Your task to perform on an android device: Open Yahoo.com Image 0: 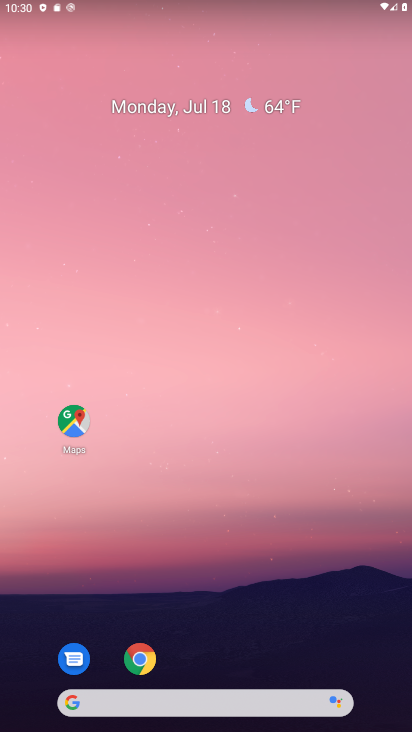
Step 0: drag from (236, 620) to (209, 35)
Your task to perform on an android device: Open Yahoo.com Image 1: 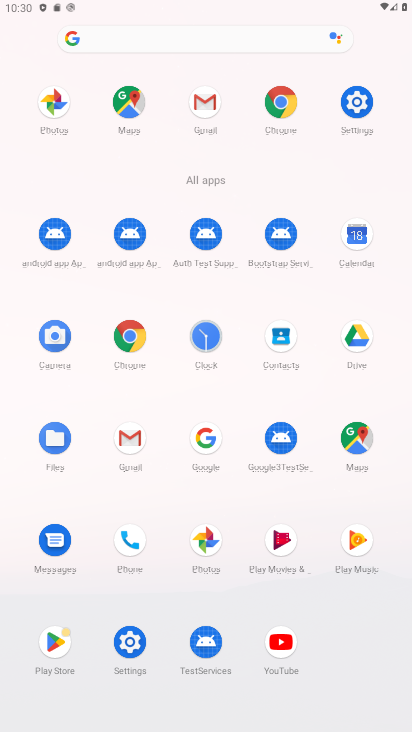
Step 1: click (141, 339)
Your task to perform on an android device: Open Yahoo.com Image 2: 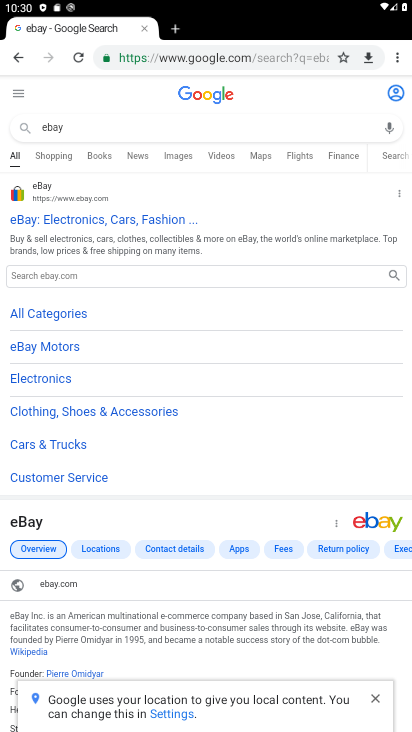
Step 2: click (278, 53)
Your task to perform on an android device: Open Yahoo.com Image 3: 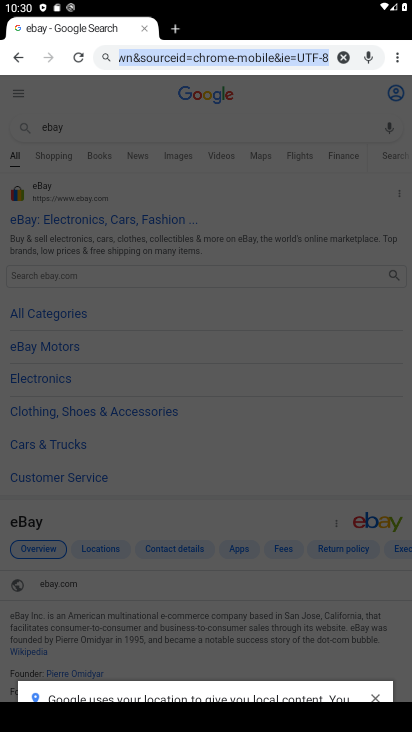
Step 3: type "yahoo.com"
Your task to perform on an android device: Open Yahoo.com Image 4: 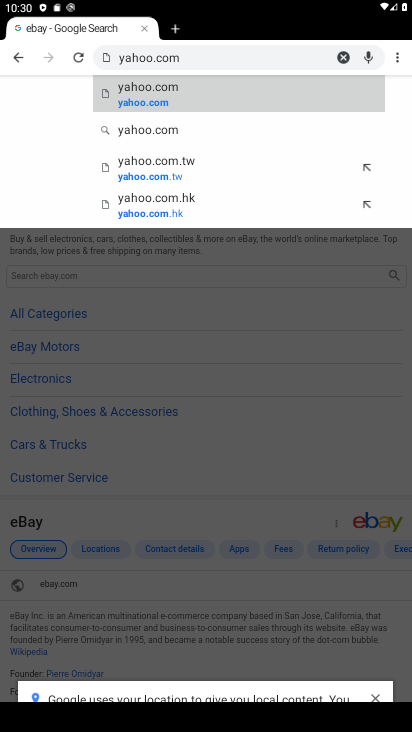
Step 4: click (176, 85)
Your task to perform on an android device: Open Yahoo.com Image 5: 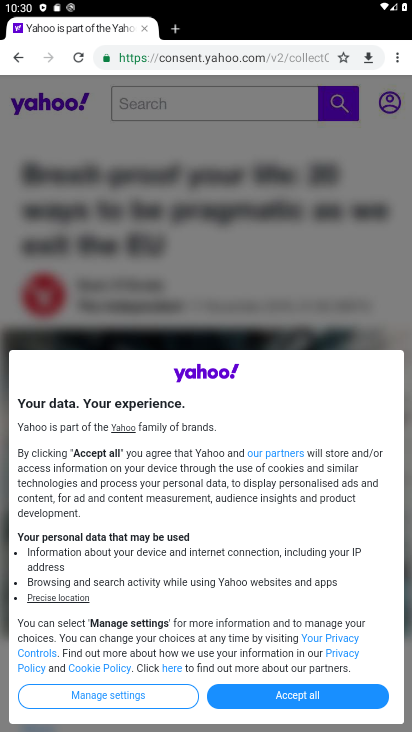
Step 5: task complete